Your task to perform on an android device: Empty the shopping cart on amazon.com. Search for acer nitro on amazon.com, select the first entry, add it to the cart, then select checkout. Image 0: 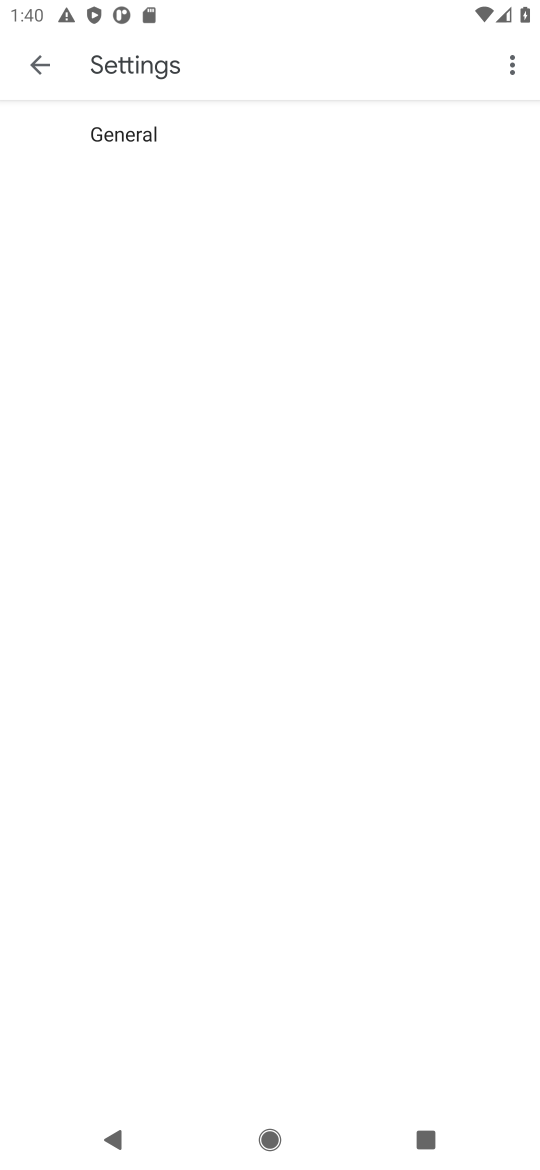
Step 0: press home button
Your task to perform on an android device: Empty the shopping cart on amazon.com. Search for acer nitro on amazon.com, select the first entry, add it to the cart, then select checkout. Image 1: 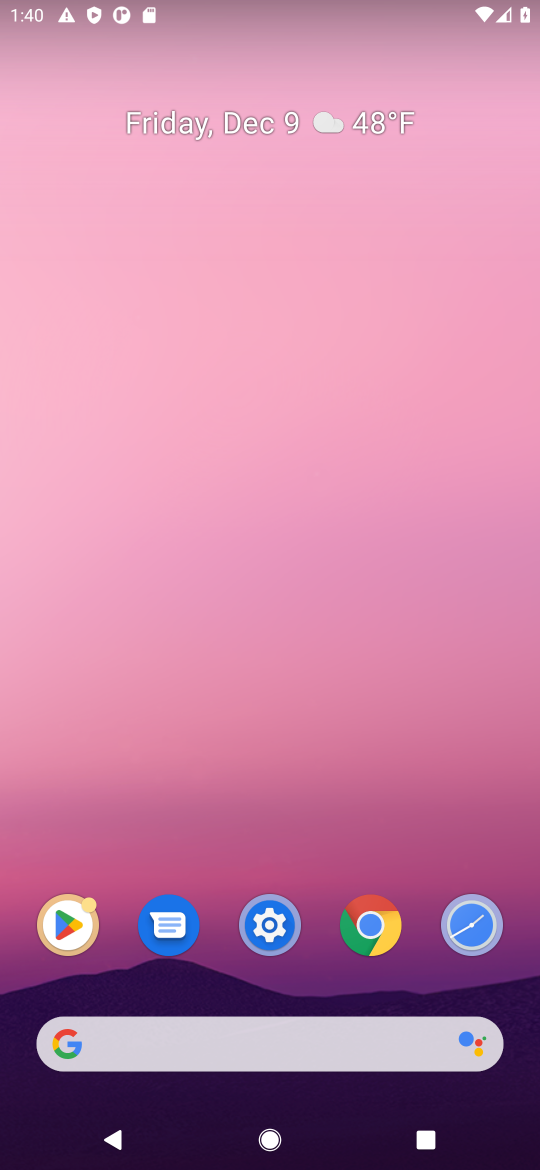
Step 1: click (362, 1046)
Your task to perform on an android device: Empty the shopping cart on amazon.com. Search for acer nitro on amazon.com, select the first entry, add it to the cart, then select checkout. Image 2: 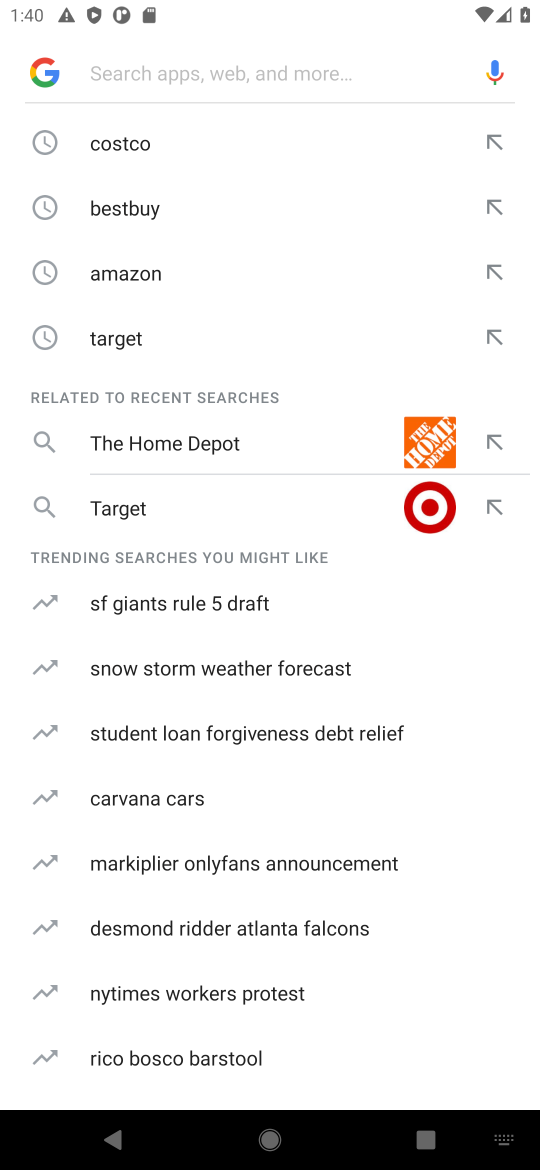
Step 2: click (191, 280)
Your task to perform on an android device: Empty the shopping cart on amazon.com. Search for acer nitro on amazon.com, select the first entry, add it to the cart, then select checkout. Image 3: 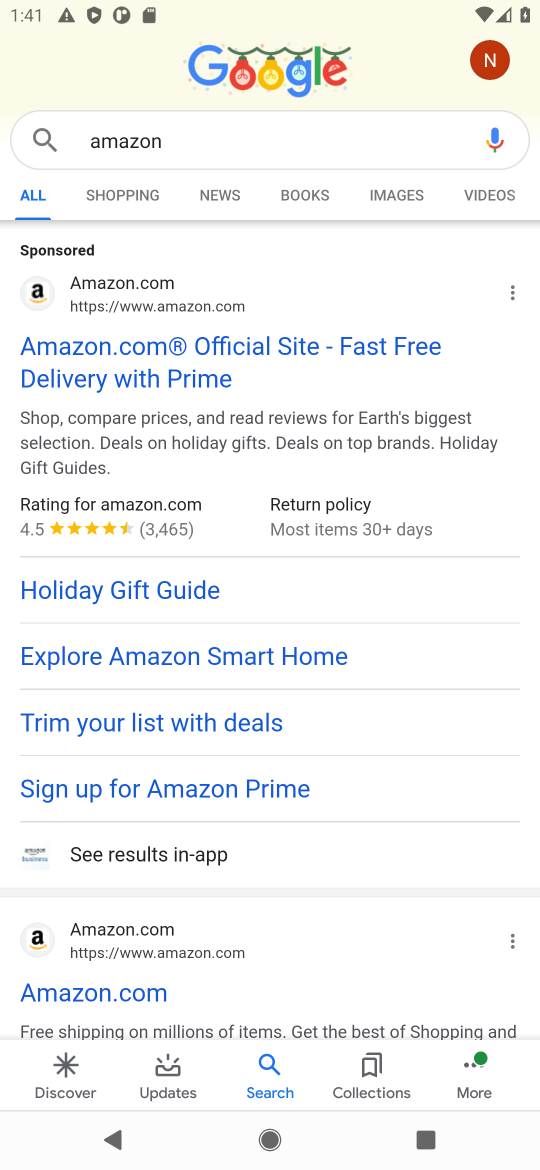
Step 3: click (125, 403)
Your task to perform on an android device: Empty the shopping cart on amazon.com. Search for acer nitro on amazon.com, select the first entry, add it to the cart, then select checkout. Image 4: 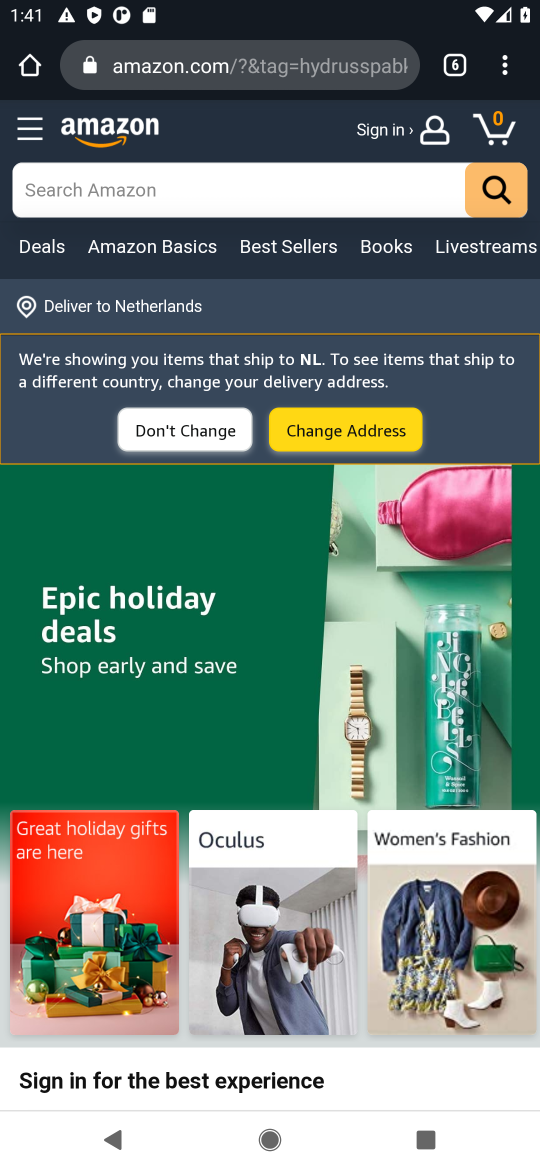
Step 4: click (128, 197)
Your task to perform on an android device: Empty the shopping cart on amazon.com. Search for acer nitro on amazon.com, select the first entry, add it to the cart, then select checkout. Image 5: 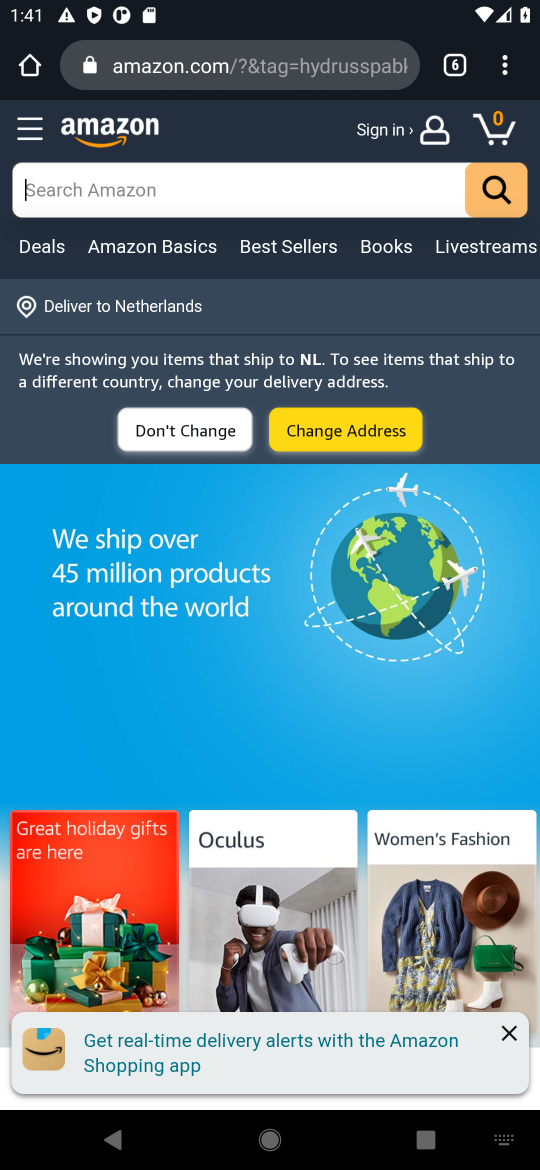
Step 5: type "acer nitro"
Your task to perform on an android device: Empty the shopping cart on amazon.com. Search for acer nitro on amazon.com, select the first entry, add it to the cart, then select checkout. Image 6: 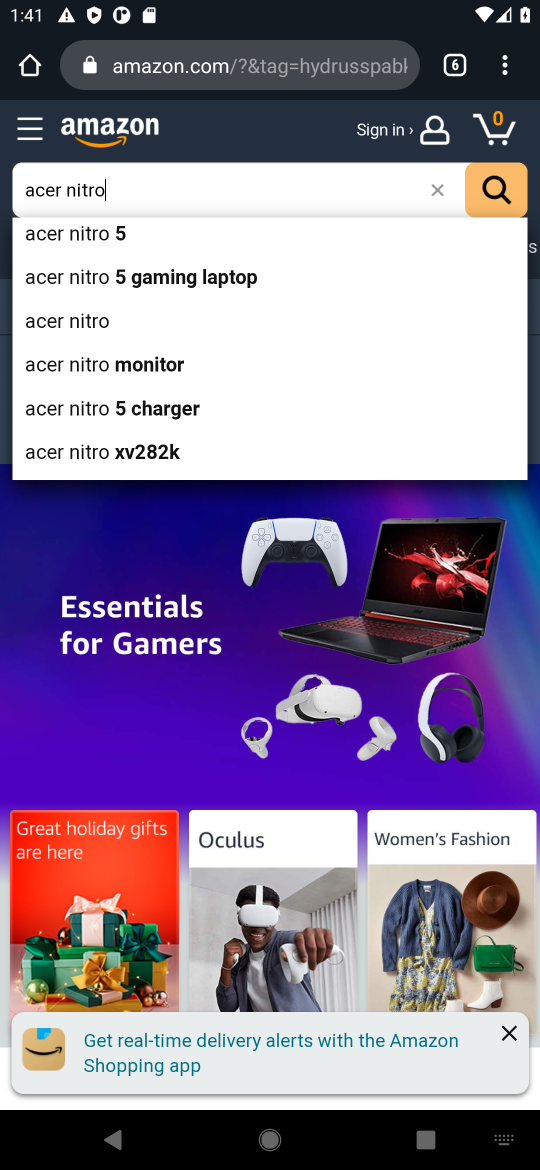
Step 6: click (483, 198)
Your task to perform on an android device: Empty the shopping cart on amazon.com. Search for acer nitro on amazon.com, select the first entry, add it to the cart, then select checkout. Image 7: 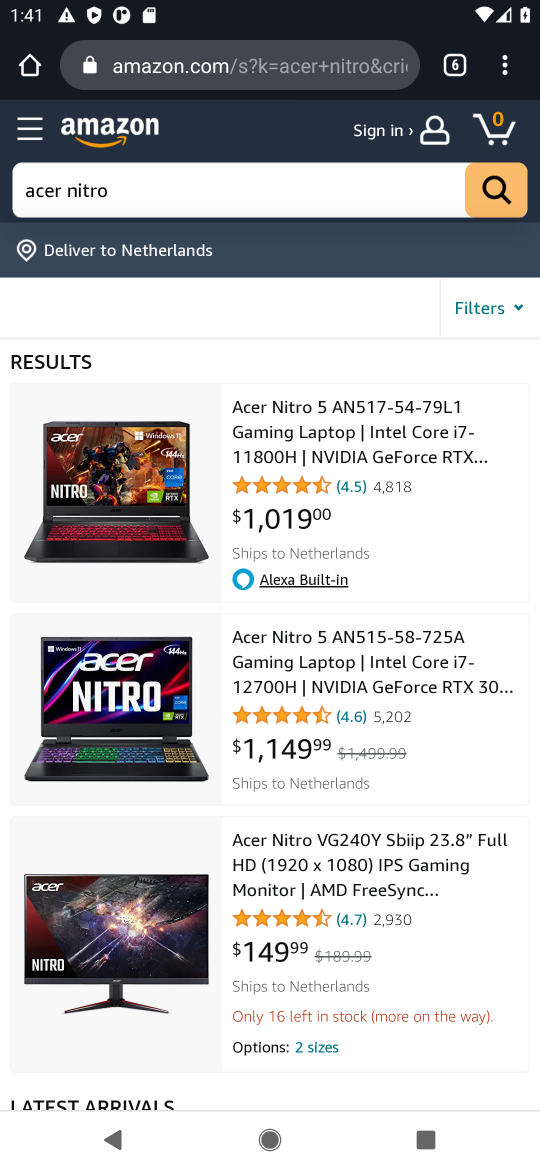
Step 7: click (287, 455)
Your task to perform on an android device: Empty the shopping cart on amazon.com. Search for acer nitro on amazon.com, select the first entry, add it to the cart, then select checkout. Image 8: 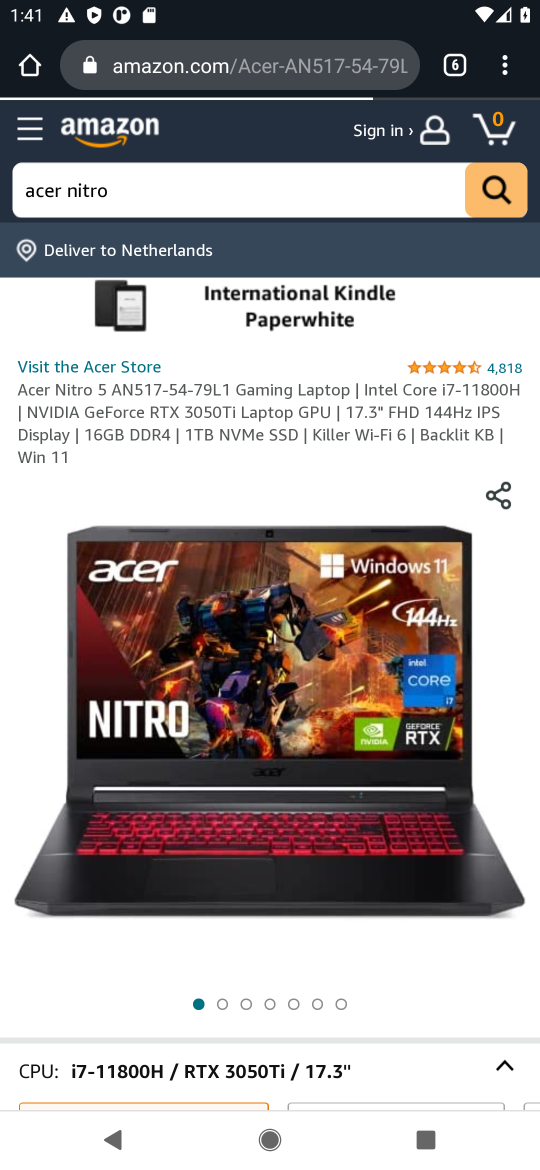
Step 8: drag from (373, 962) to (353, 258)
Your task to perform on an android device: Empty the shopping cart on amazon.com. Search for acer nitro on amazon.com, select the first entry, add it to the cart, then select checkout. Image 9: 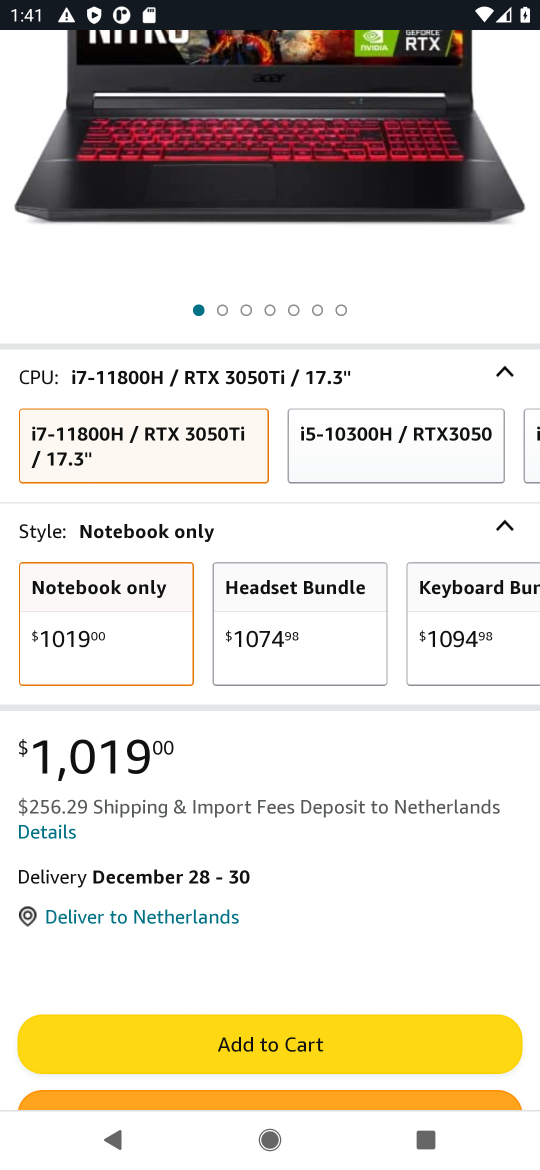
Step 9: click (375, 1056)
Your task to perform on an android device: Empty the shopping cart on amazon.com. Search for acer nitro on amazon.com, select the first entry, add it to the cart, then select checkout. Image 10: 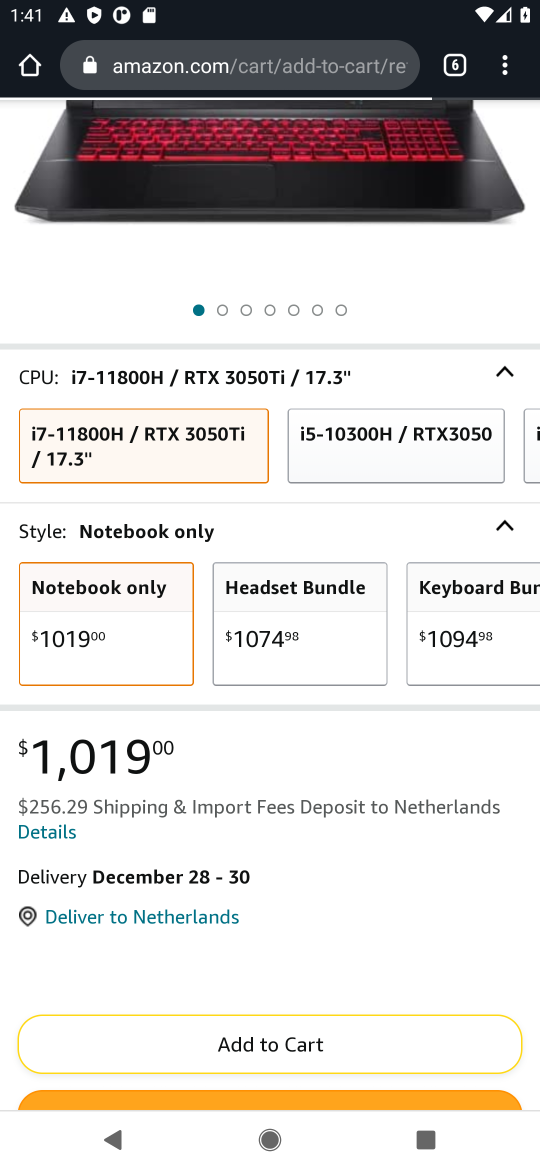
Step 10: task complete